Your task to perform on an android device: Clear the shopping cart on ebay.com. Search for "usb-c" on ebay.com, select the first entry, and add it to the cart. Image 0: 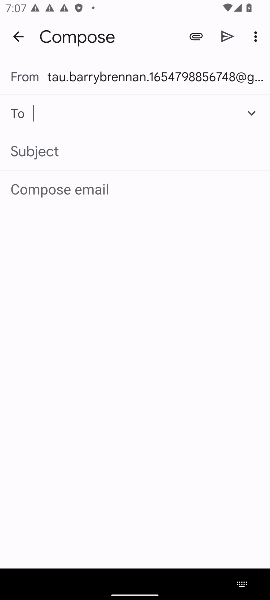
Step 0: press home button
Your task to perform on an android device: Clear the shopping cart on ebay.com. Search for "usb-c" on ebay.com, select the first entry, and add it to the cart. Image 1: 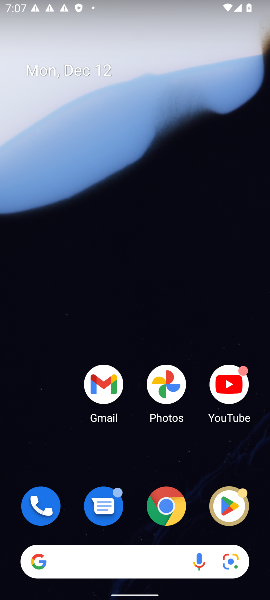
Step 1: click (175, 557)
Your task to perform on an android device: Clear the shopping cart on ebay.com. Search for "usb-c" on ebay.com, select the first entry, and add it to the cart. Image 2: 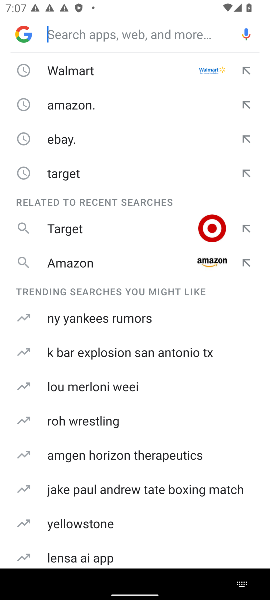
Step 2: click (67, 148)
Your task to perform on an android device: Clear the shopping cart on ebay.com. Search for "usb-c" on ebay.com, select the first entry, and add it to the cart. Image 3: 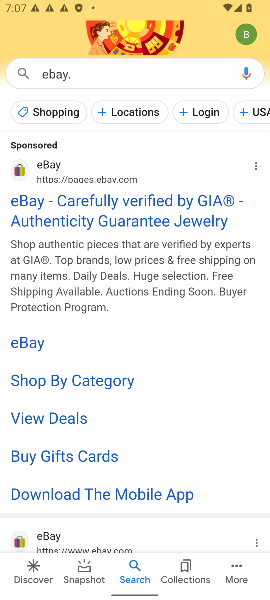
Step 3: click (101, 229)
Your task to perform on an android device: Clear the shopping cart on ebay.com. Search for "usb-c" on ebay.com, select the first entry, and add it to the cart. Image 4: 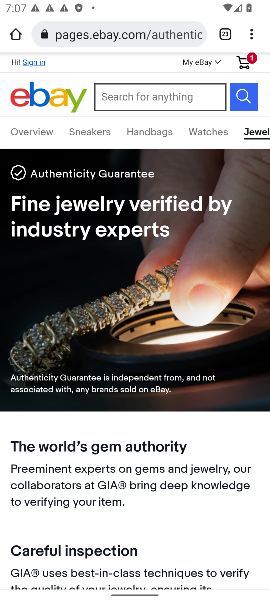
Step 4: click (36, 128)
Your task to perform on an android device: Clear the shopping cart on ebay.com. Search for "usb-c" on ebay.com, select the first entry, and add it to the cart. Image 5: 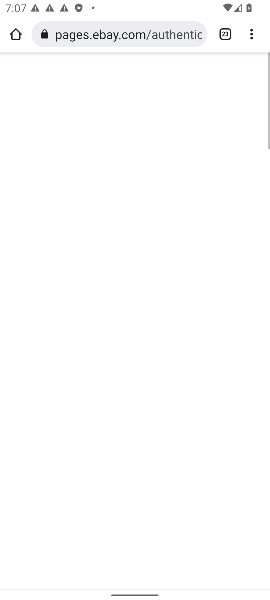
Step 5: click (130, 96)
Your task to perform on an android device: Clear the shopping cart on ebay.com. Search for "usb-c" on ebay.com, select the first entry, and add it to the cart. Image 6: 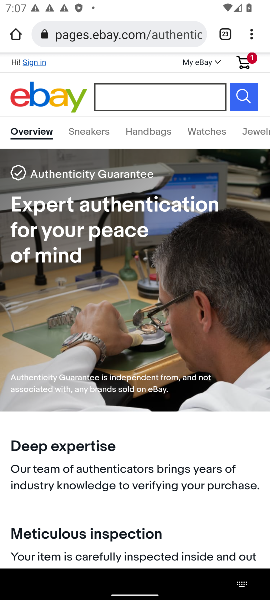
Step 6: type "usb-c"
Your task to perform on an android device: Clear the shopping cart on ebay.com. Search for "usb-c" on ebay.com, select the first entry, and add it to the cart. Image 7: 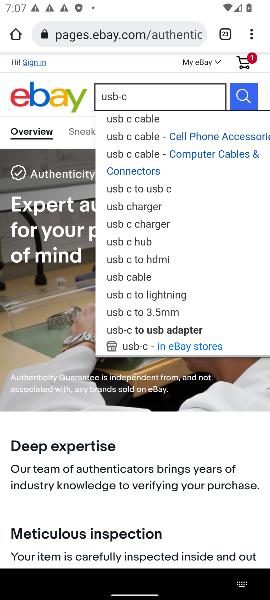
Step 7: click (253, 102)
Your task to perform on an android device: Clear the shopping cart on ebay.com. Search for "usb-c" on ebay.com, select the first entry, and add it to the cart. Image 8: 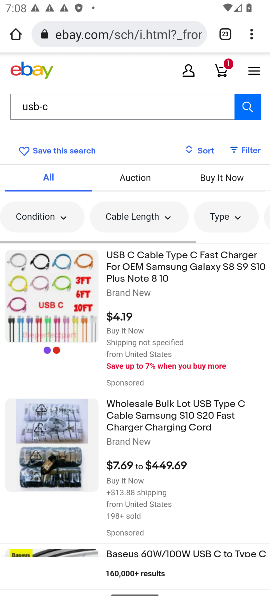
Step 8: click (175, 298)
Your task to perform on an android device: Clear the shopping cart on ebay.com. Search for "usb-c" on ebay.com, select the first entry, and add it to the cart. Image 9: 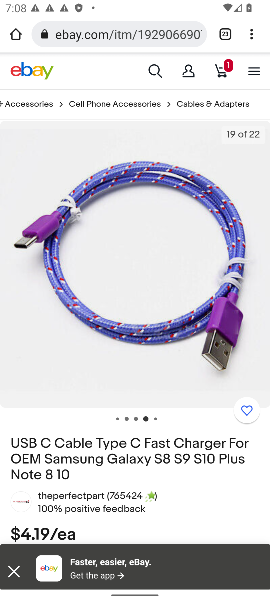
Step 9: drag from (166, 522) to (118, 234)
Your task to perform on an android device: Clear the shopping cart on ebay.com. Search for "usb-c" on ebay.com, select the first entry, and add it to the cart. Image 10: 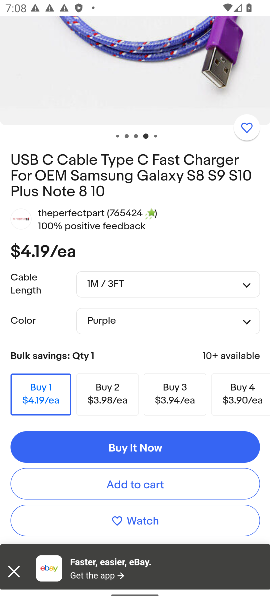
Step 10: click (171, 489)
Your task to perform on an android device: Clear the shopping cart on ebay.com. Search for "usb-c" on ebay.com, select the first entry, and add it to the cart. Image 11: 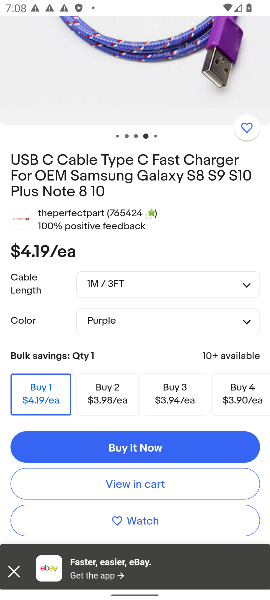
Step 11: task complete